Your task to perform on an android device: turn on priority inbox in the gmail app Image 0: 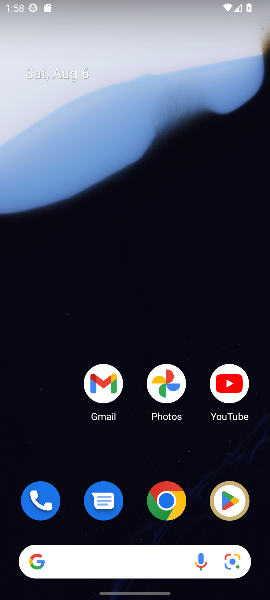
Step 0: press home button
Your task to perform on an android device: turn on priority inbox in the gmail app Image 1: 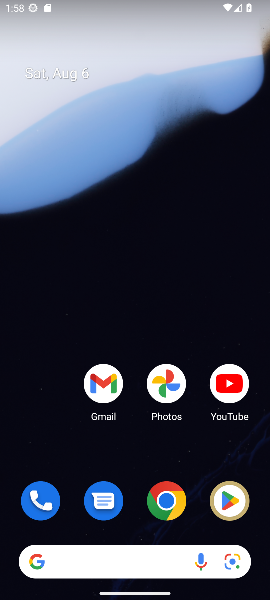
Step 1: drag from (134, 528) to (221, 69)
Your task to perform on an android device: turn on priority inbox in the gmail app Image 2: 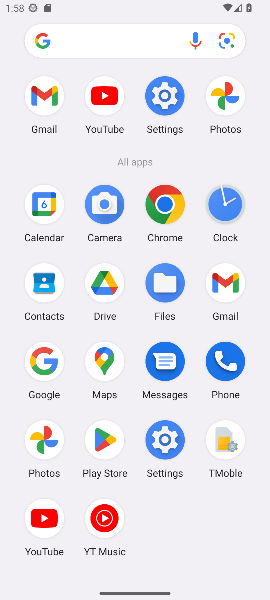
Step 2: click (226, 282)
Your task to perform on an android device: turn on priority inbox in the gmail app Image 3: 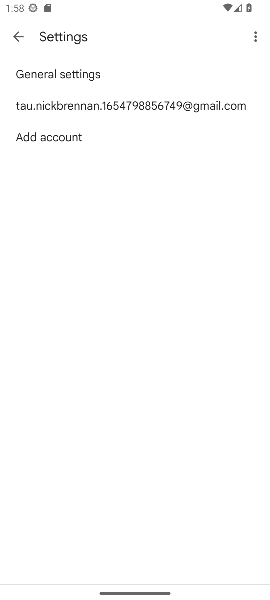
Step 3: click (100, 105)
Your task to perform on an android device: turn on priority inbox in the gmail app Image 4: 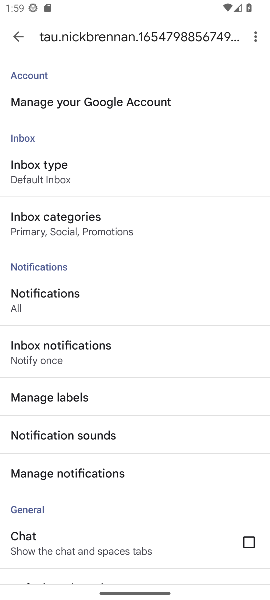
Step 4: click (47, 178)
Your task to perform on an android device: turn on priority inbox in the gmail app Image 5: 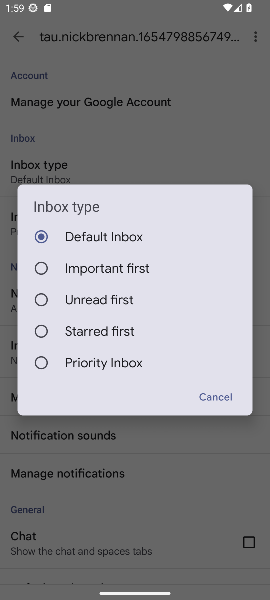
Step 5: click (35, 366)
Your task to perform on an android device: turn on priority inbox in the gmail app Image 6: 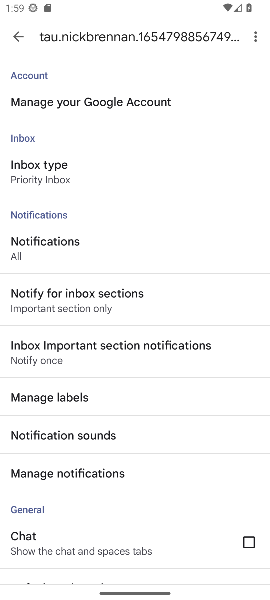
Step 6: task complete